Your task to perform on an android device: Toggle the flashlight Image 0: 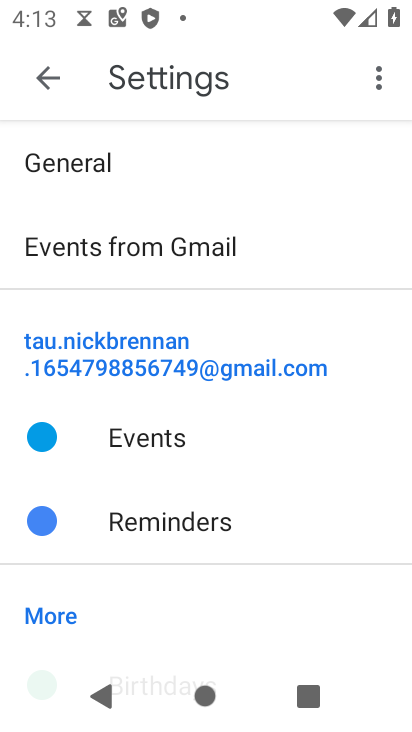
Step 0: press back button
Your task to perform on an android device: Toggle the flashlight Image 1: 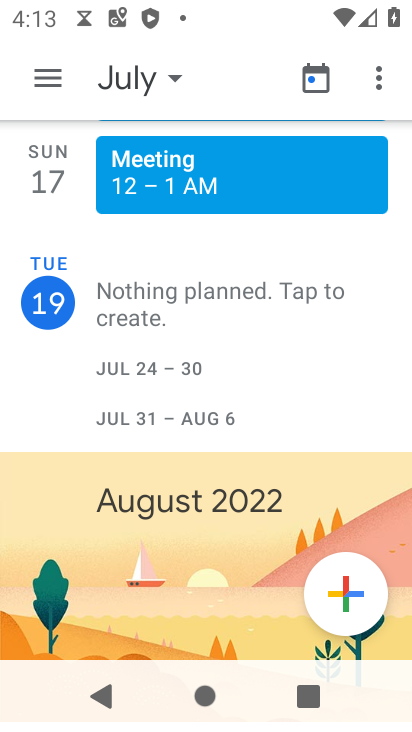
Step 1: press back button
Your task to perform on an android device: Toggle the flashlight Image 2: 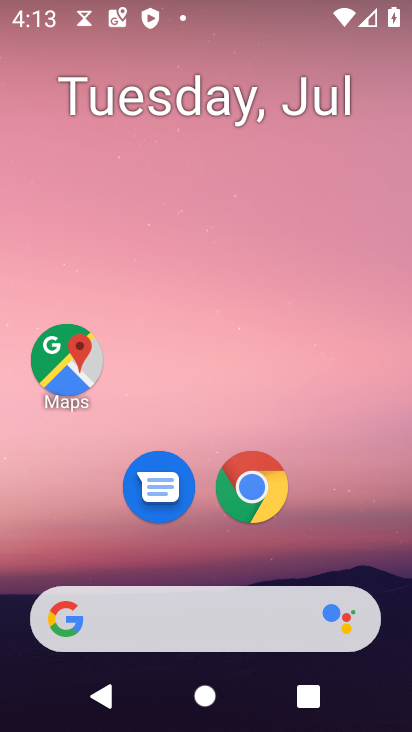
Step 2: drag from (242, 495) to (240, 14)
Your task to perform on an android device: Toggle the flashlight Image 3: 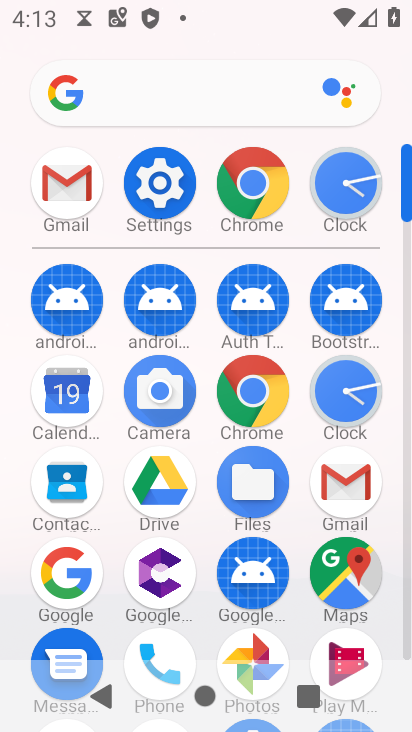
Step 3: click (174, 196)
Your task to perform on an android device: Toggle the flashlight Image 4: 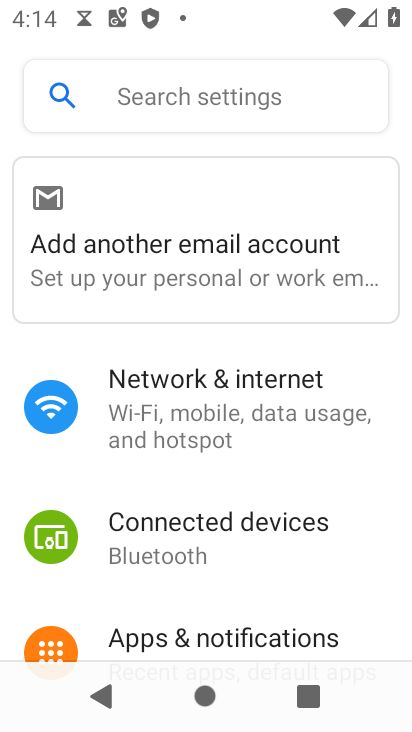
Step 4: click (204, 104)
Your task to perform on an android device: Toggle the flashlight Image 5: 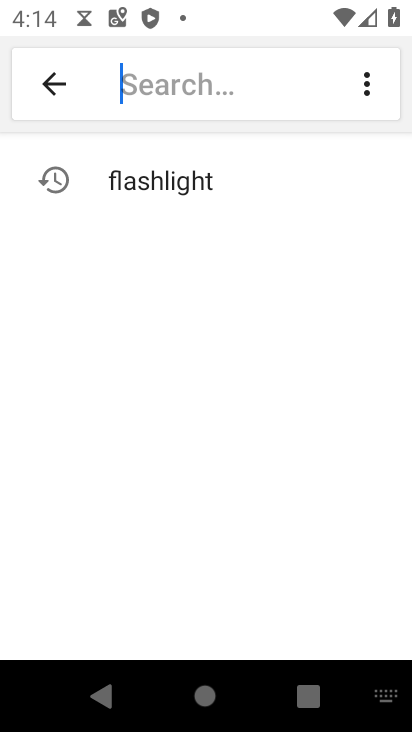
Step 5: type "flashlight"
Your task to perform on an android device: Toggle the flashlight Image 6: 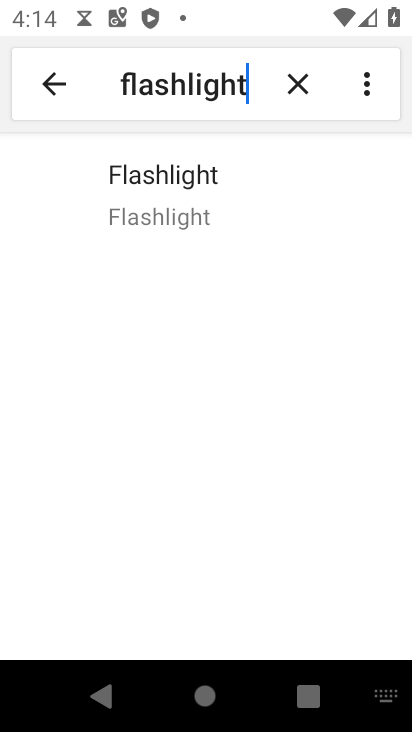
Step 6: click (147, 194)
Your task to perform on an android device: Toggle the flashlight Image 7: 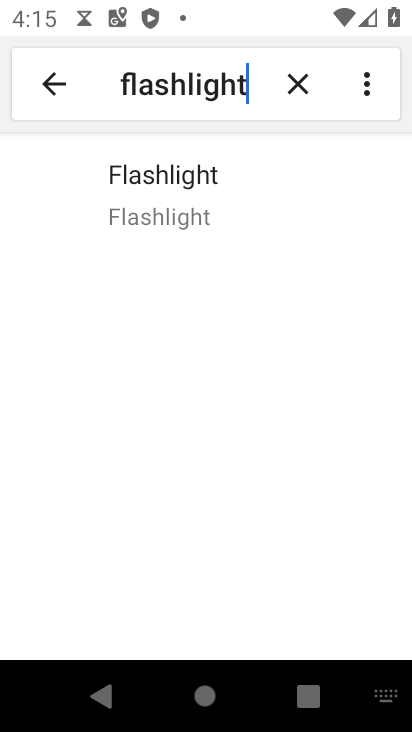
Step 7: click (206, 189)
Your task to perform on an android device: Toggle the flashlight Image 8: 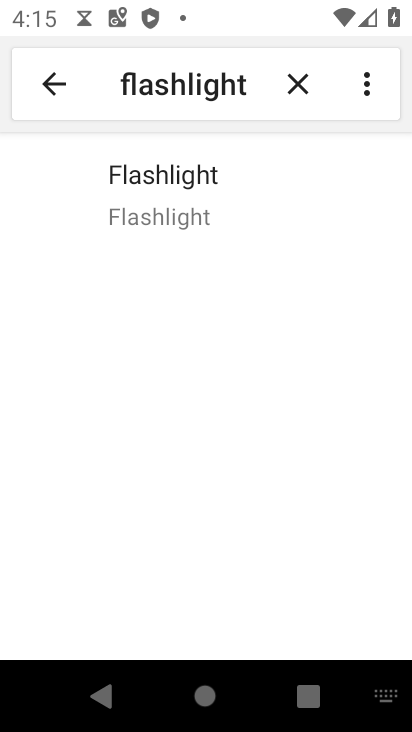
Step 8: click (201, 186)
Your task to perform on an android device: Toggle the flashlight Image 9: 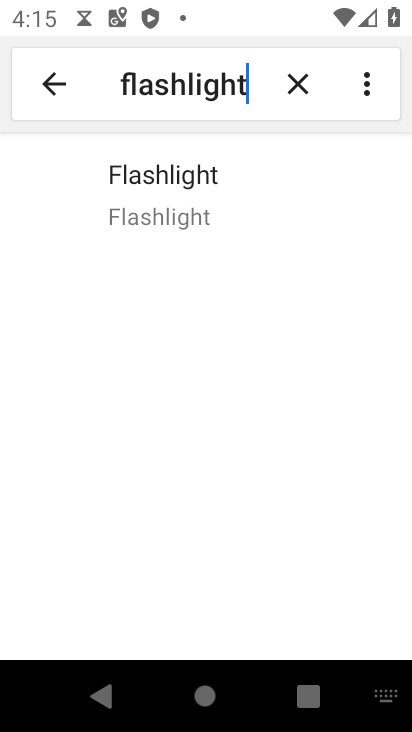
Step 9: task complete